Your task to perform on an android device: Search for the most popular books on Goodreads Image 0: 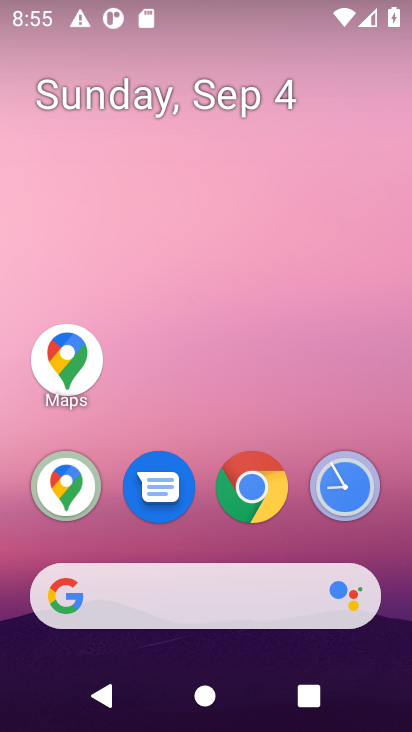
Step 0: click (275, 500)
Your task to perform on an android device: Search for the most popular books on Goodreads Image 1: 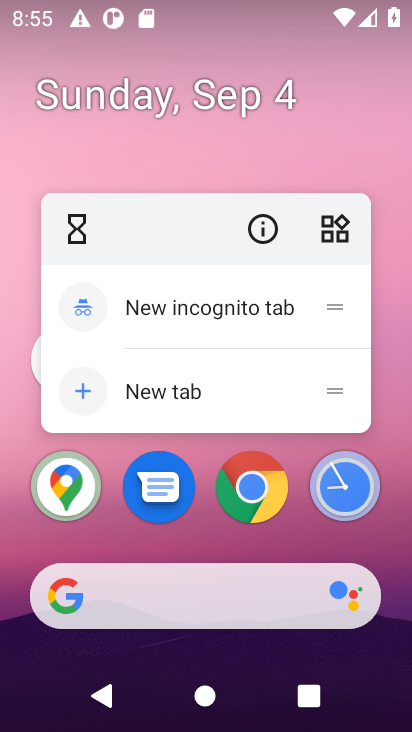
Step 1: task complete